Your task to perform on an android device: Go to Reddit.com Image 0: 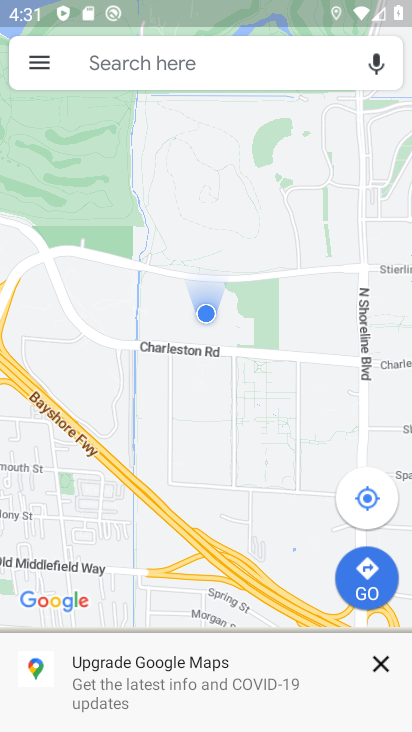
Step 0: press back button
Your task to perform on an android device: Go to Reddit.com Image 1: 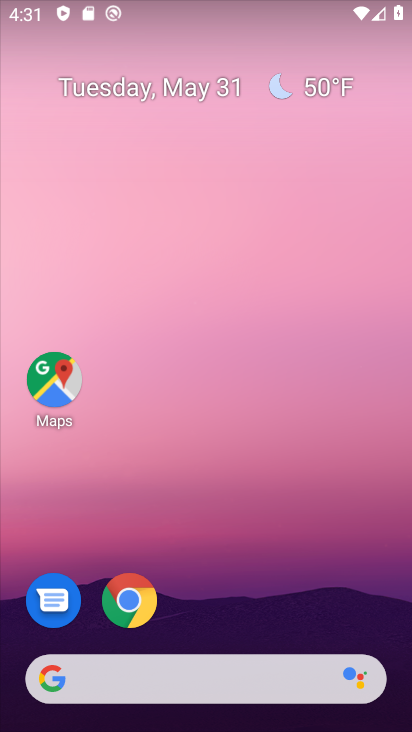
Step 1: press back button
Your task to perform on an android device: Go to Reddit.com Image 2: 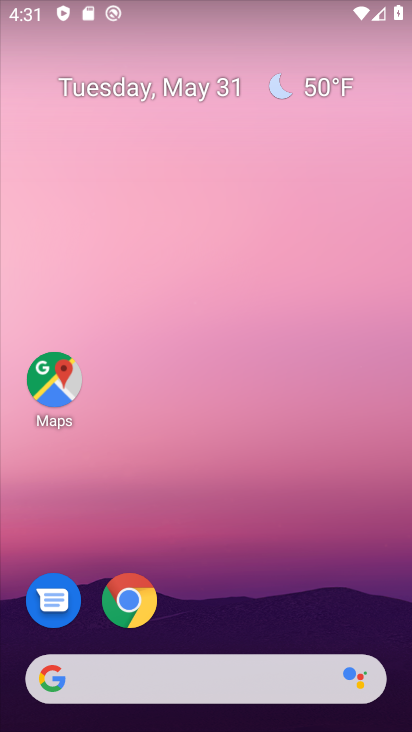
Step 2: click (129, 599)
Your task to perform on an android device: Go to Reddit.com Image 3: 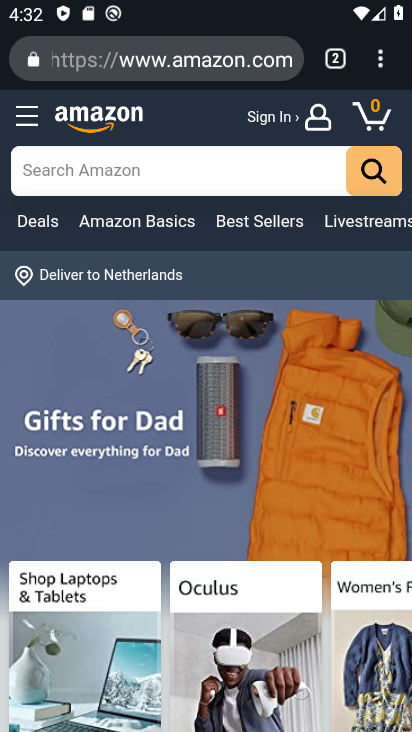
Step 3: click (273, 58)
Your task to perform on an android device: Go to Reddit.com Image 4: 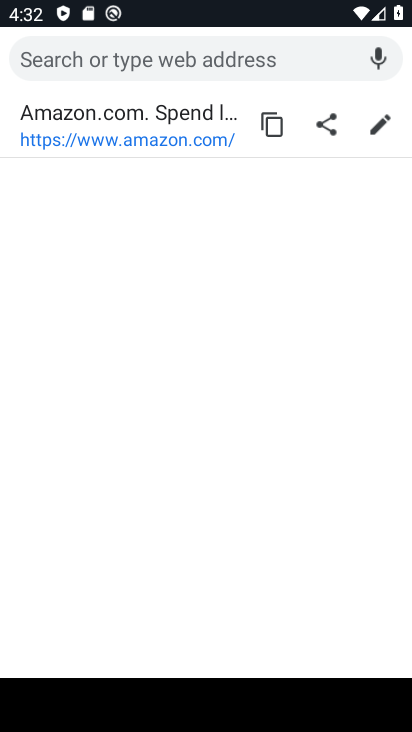
Step 4: click (258, 59)
Your task to perform on an android device: Go to Reddit.com Image 5: 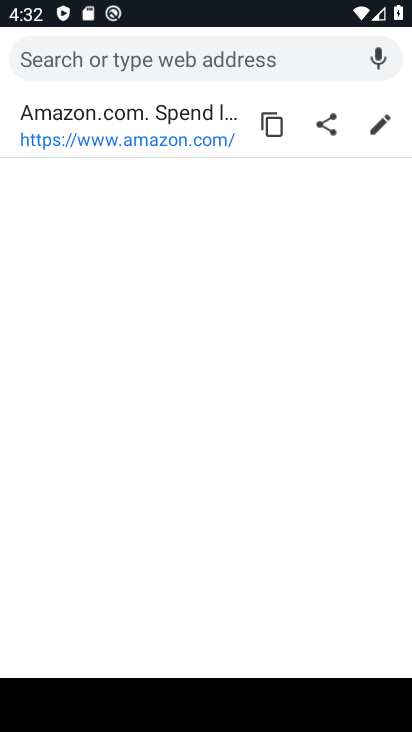
Step 5: type "Reddit.com"
Your task to perform on an android device: Go to Reddit.com Image 6: 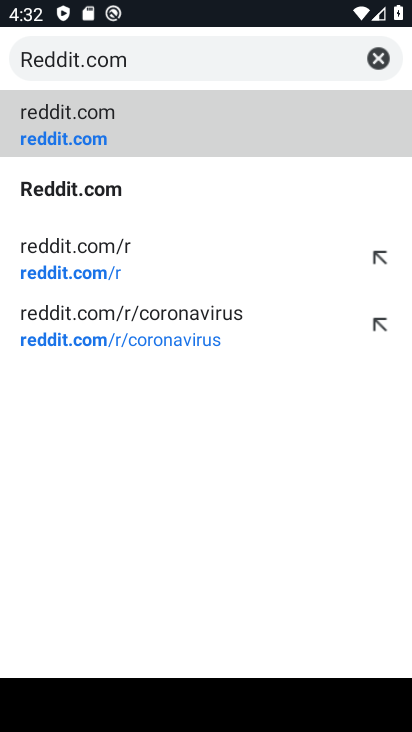
Step 6: click (60, 186)
Your task to perform on an android device: Go to Reddit.com Image 7: 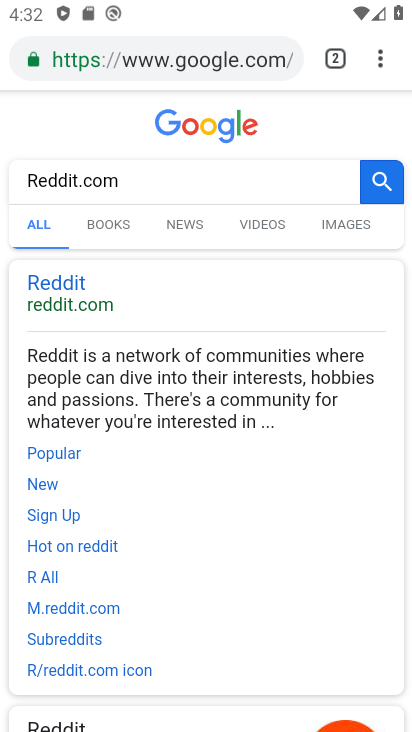
Step 7: click (100, 311)
Your task to perform on an android device: Go to Reddit.com Image 8: 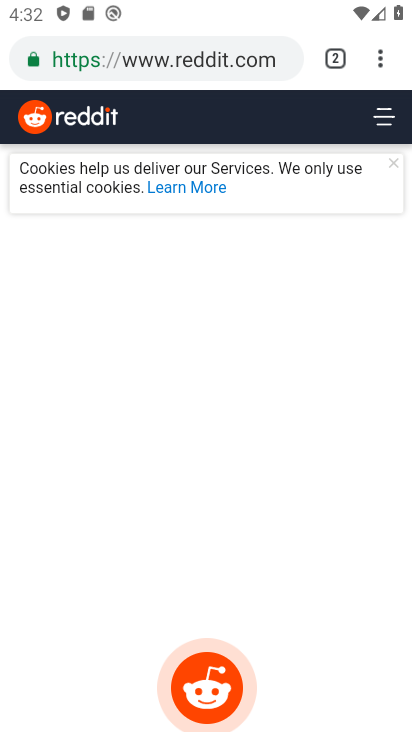
Step 8: task complete